Your task to perform on an android device: Open display settings Image 0: 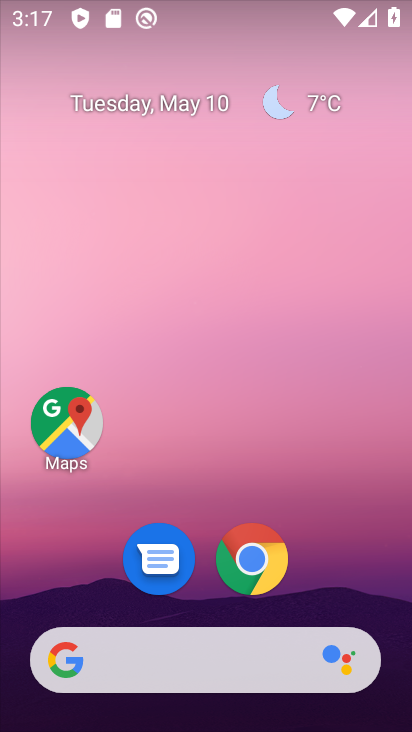
Step 0: drag from (327, 579) to (307, 200)
Your task to perform on an android device: Open display settings Image 1: 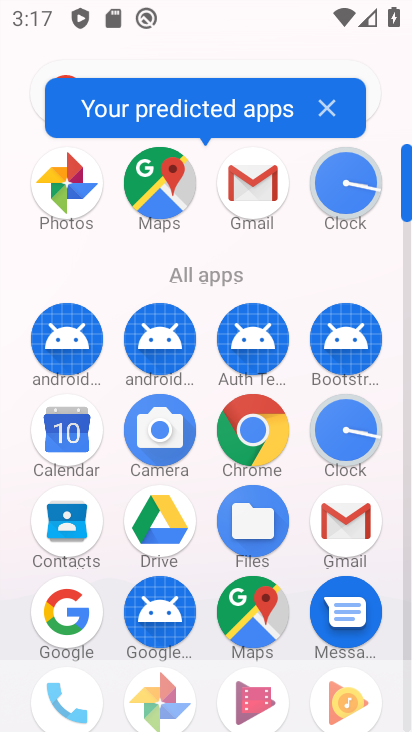
Step 1: drag from (204, 624) to (182, 291)
Your task to perform on an android device: Open display settings Image 2: 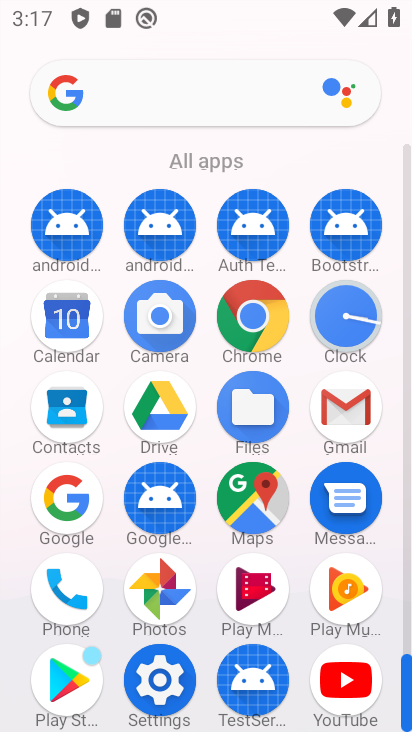
Step 2: drag from (172, 600) to (183, 378)
Your task to perform on an android device: Open display settings Image 3: 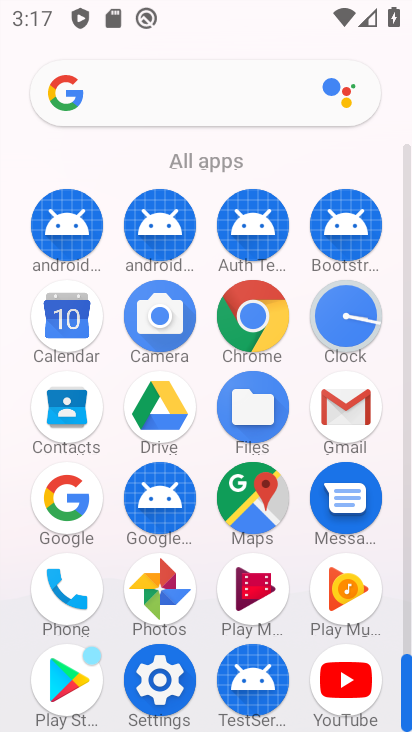
Step 3: click (174, 656)
Your task to perform on an android device: Open display settings Image 4: 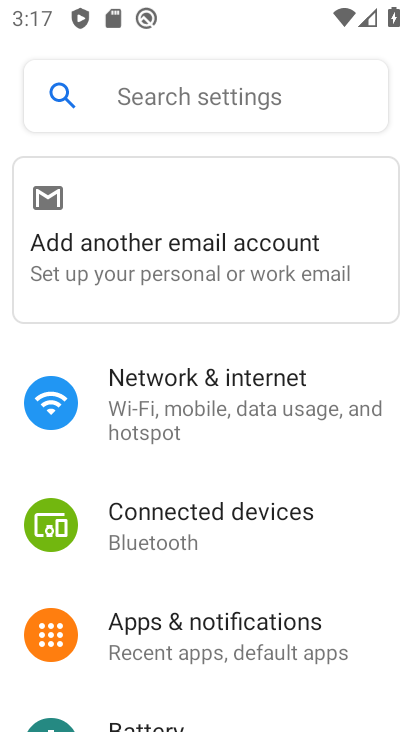
Step 4: drag from (310, 659) to (320, 328)
Your task to perform on an android device: Open display settings Image 5: 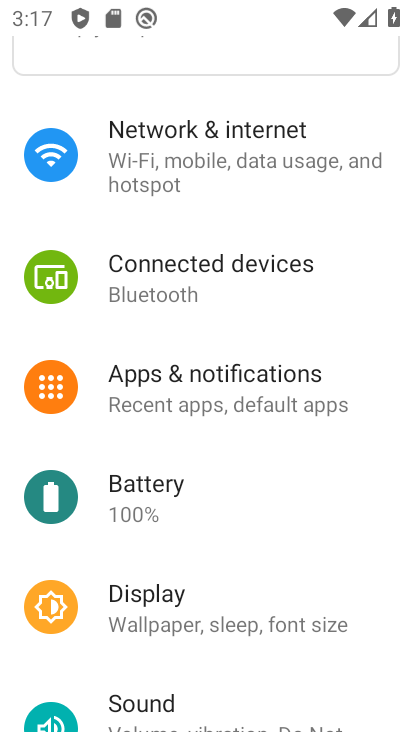
Step 5: click (274, 618)
Your task to perform on an android device: Open display settings Image 6: 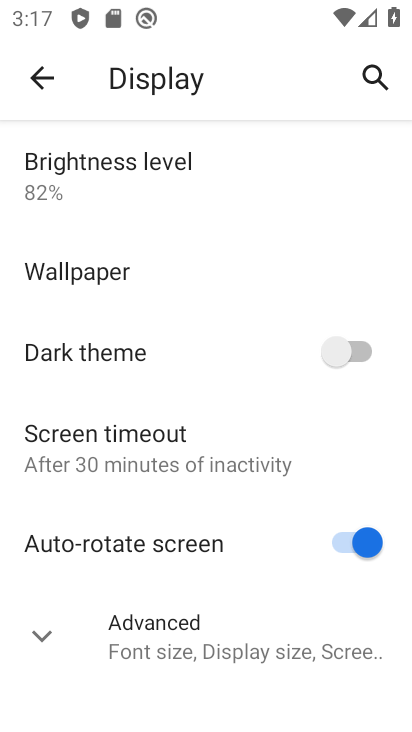
Step 6: task complete